Your task to perform on an android device: Empty the shopping cart on ebay.com. Image 0: 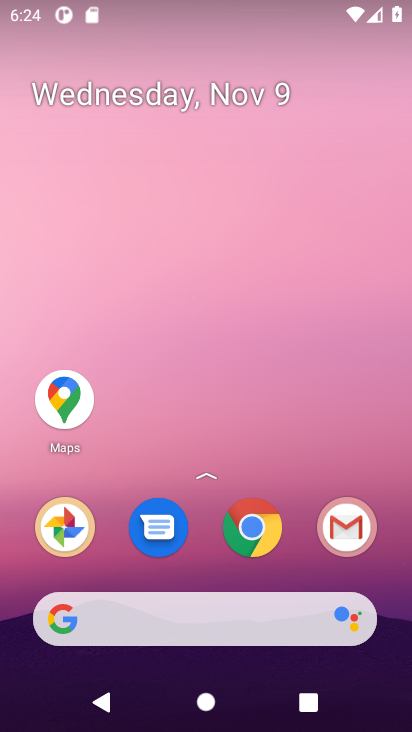
Step 0: press home button
Your task to perform on an android device: Empty the shopping cart on ebay.com. Image 1: 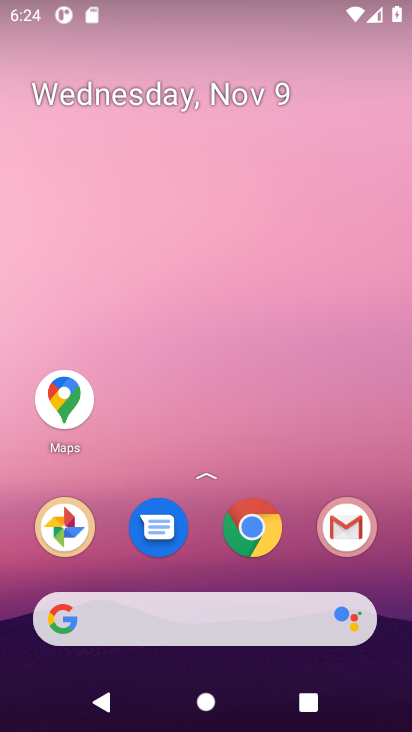
Step 1: drag from (203, 499) to (213, 1)
Your task to perform on an android device: Empty the shopping cart on ebay.com. Image 2: 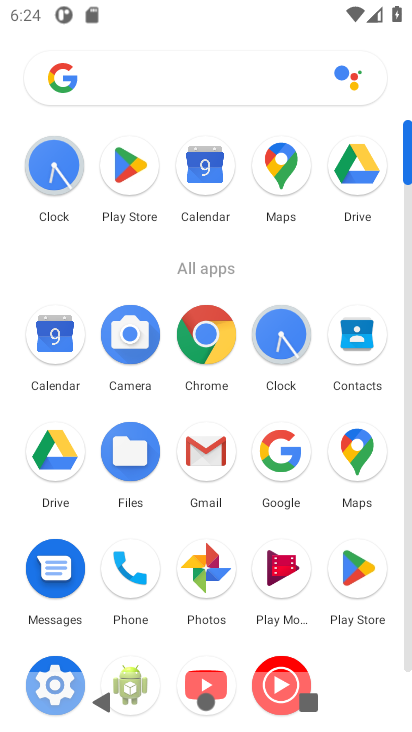
Step 2: click (202, 340)
Your task to perform on an android device: Empty the shopping cart on ebay.com. Image 3: 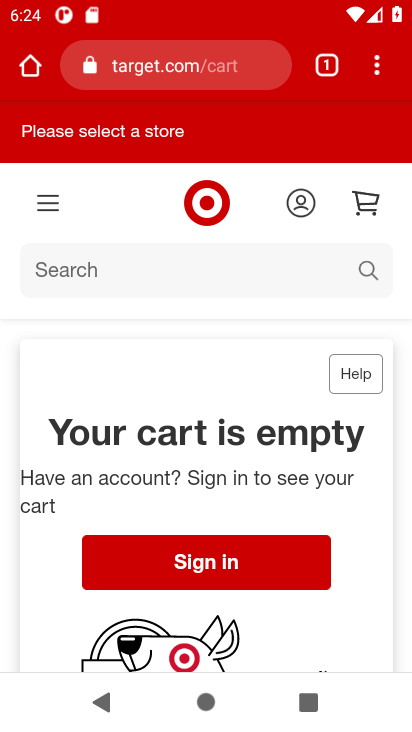
Step 3: click (153, 64)
Your task to perform on an android device: Empty the shopping cart on ebay.com. Image 4: 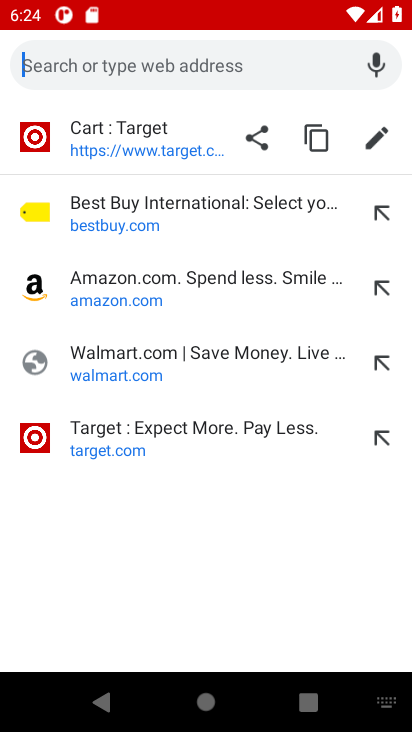
Step 4: type "ebay"
Your task to perform on an android device: Empty the shopping cart on ebay.com. Image 5: 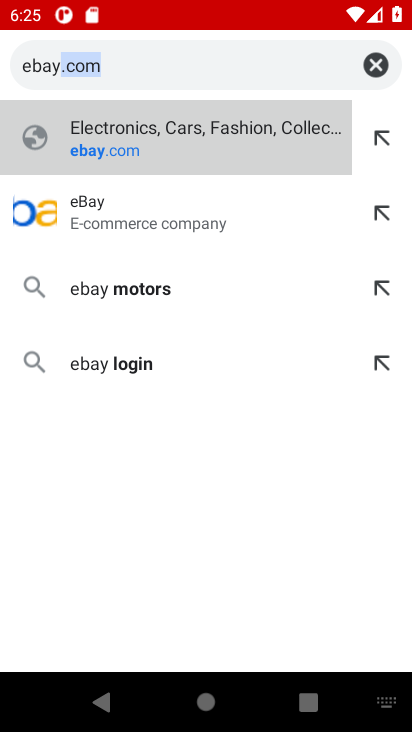
Step 5: click (155, 147)
Your task to perform on an android device: Empty the shopping cart on ebay.com. Image 6: 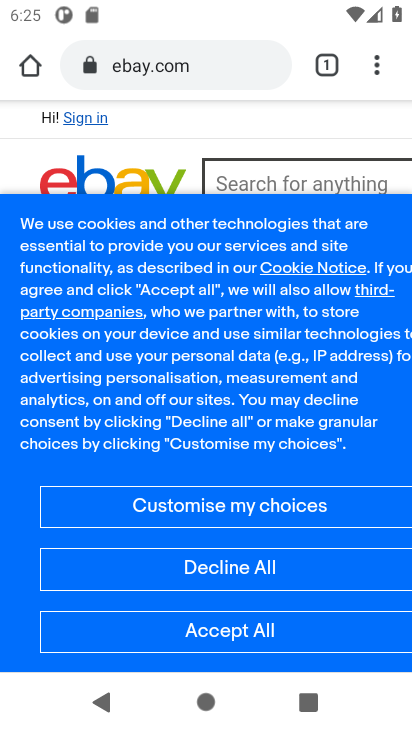
Step 6: click (236, 630)
Your task to perform on an android device: Empty the shopping cart on ebay.com. Image 7: 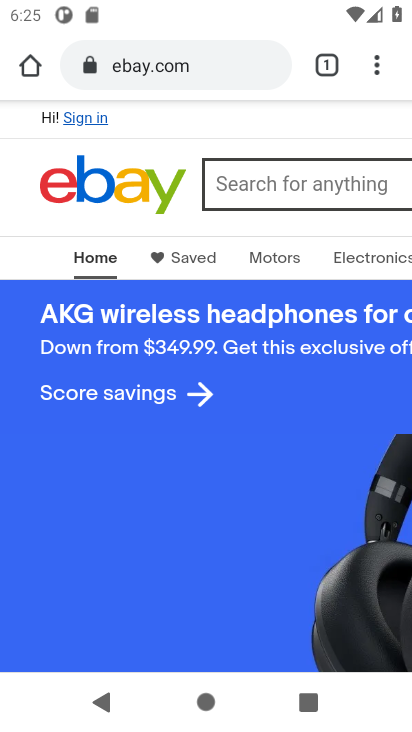
Step 7: drag from (316, 233) to (88, 213)
Your task to perform on an android device: Empty the shopping cart on ebay.com. Image 8: 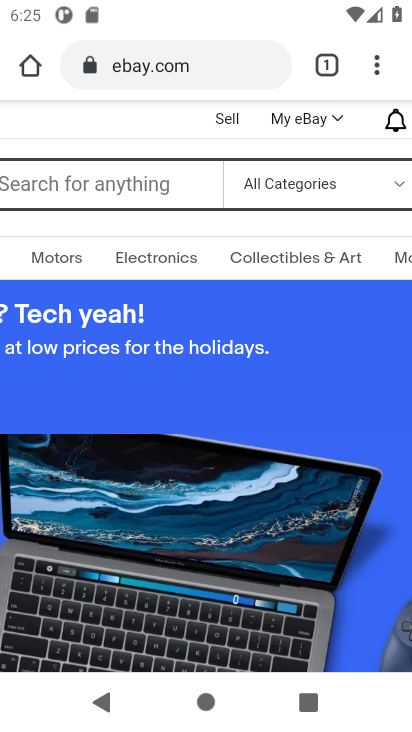
Step 8: drag from (377, 208) to (225, 220)
Your task to perform on an android device: Empty the shopping cart on ebay.com. Image 9: 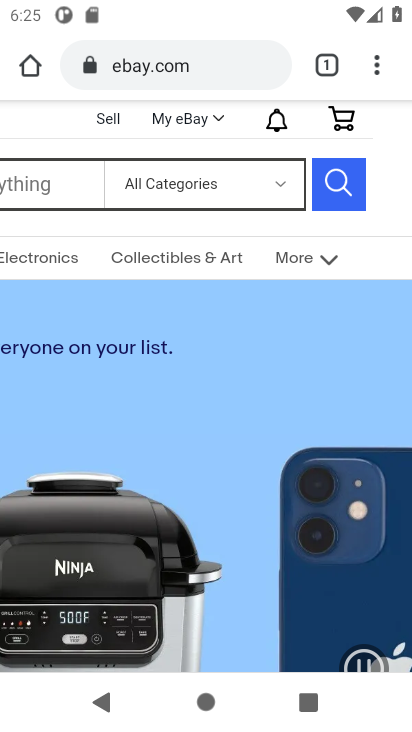
Step 9: click (334, 113)
Your task to perform on an android device: Empty the shopping cart on ebay.com. Image 10: 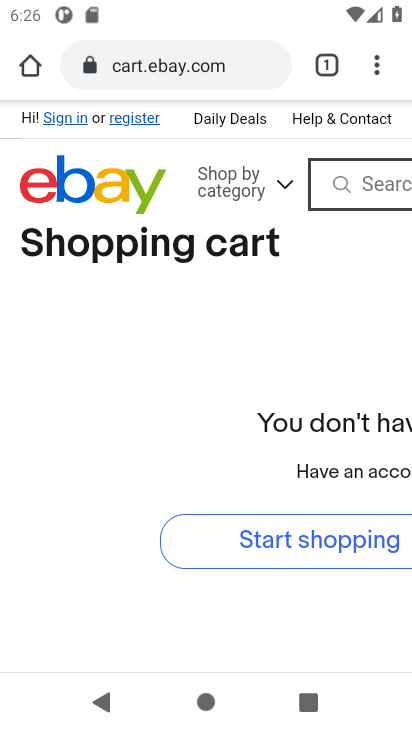
Step 10: task complete